Your task to perform on an android device: stop showing notifications on the lock screen Image 0: 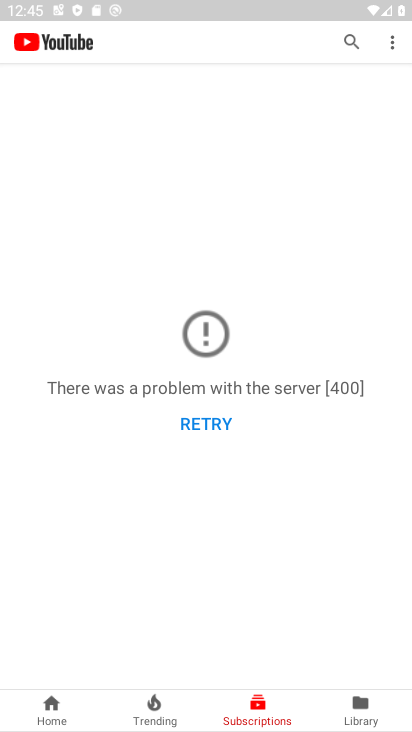
Step 0: press home button
Your task to perform on an android device: stop showing notifications on the lock screen Image 1: 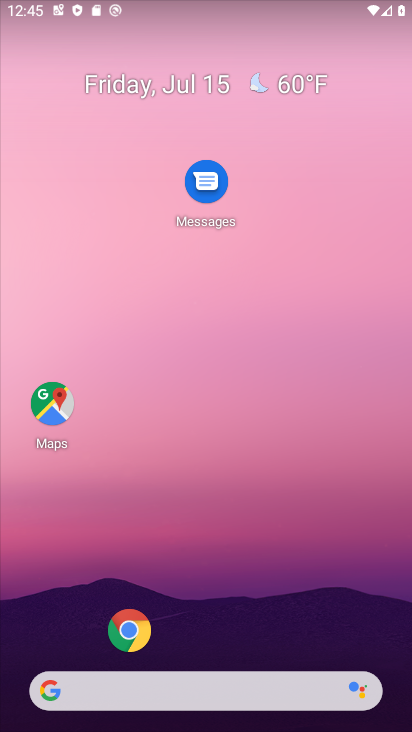
Step 1: drag from (6, 704) to (256, 163)
Your task to perform on an android device: stop showing notifications on the lock screen Image 2: 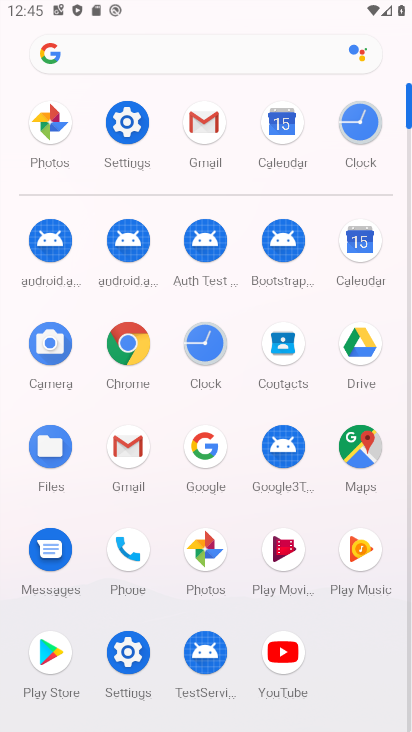
Step 2: click (120, 645)
Your task to perform on an android device: stop showing notifications on the lock screen Image 3: 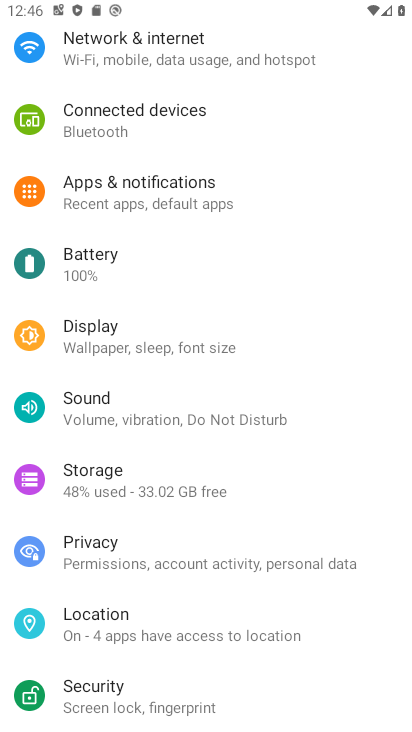
Step 3: click (172, 199)
Your task to perform on an android device: stop showing notifications on the lock screen Image 4: 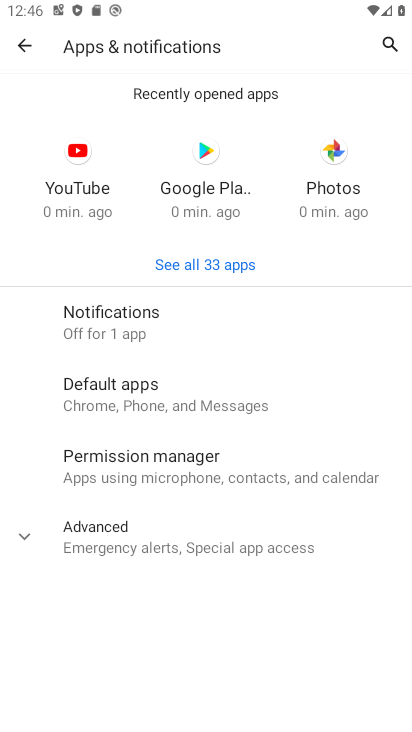
Step 4: click (20, 39)
Your task to perform on an android device: stop showing notifications on the lock screen Image 5: 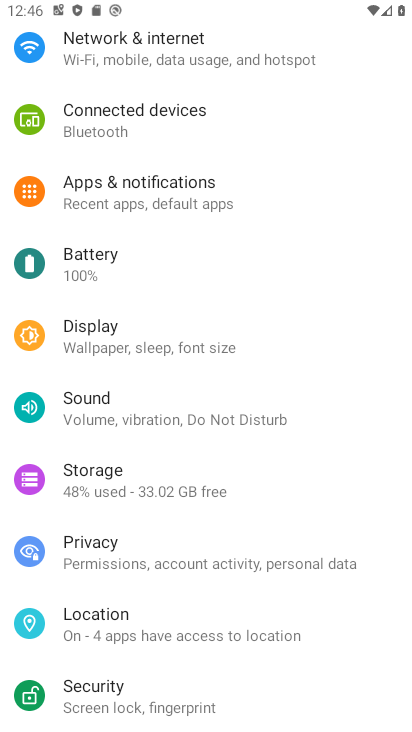
Step 5: click (133, 530)
Your task to perform on an android device: stop showing notifications on the lock screen Image 6: 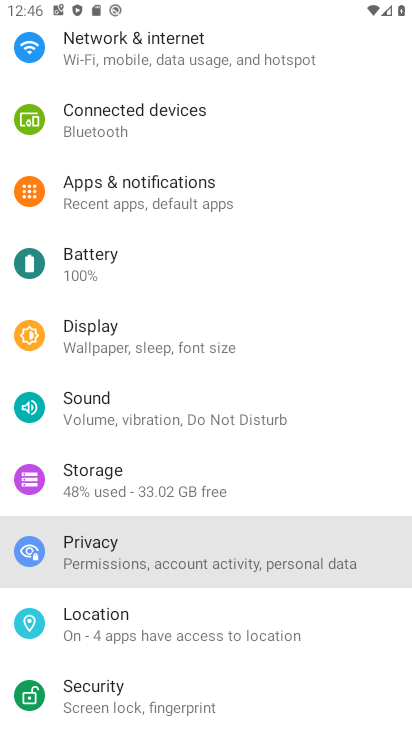
Step 6: click (122, 558)
Your task to perform on an android device: stop showing notifications on the lock screen Image 7: 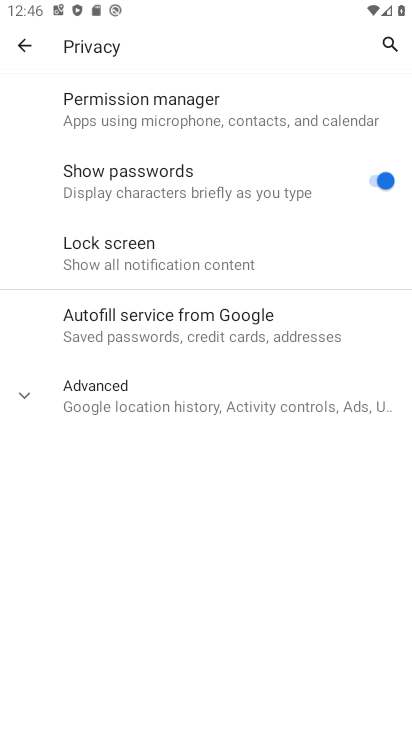
Step 7: click (147, 260)
Your task to perform on an android device: stop showing notifications on the lock screen Image 8: 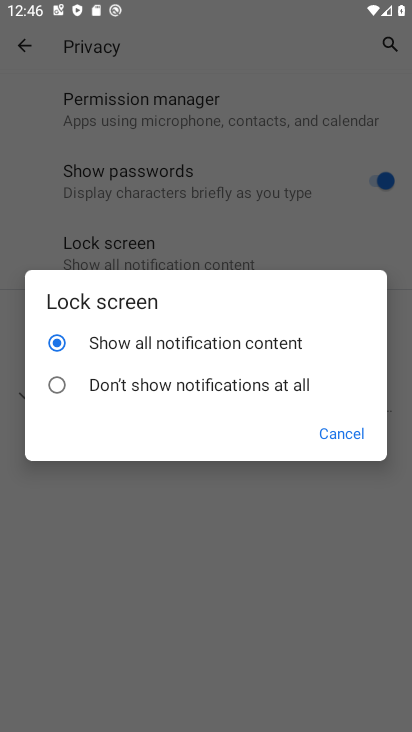
Step 8: click (144, 390)
Your task to perform on an android device: stop showing notifications on the lock screen Image 9: 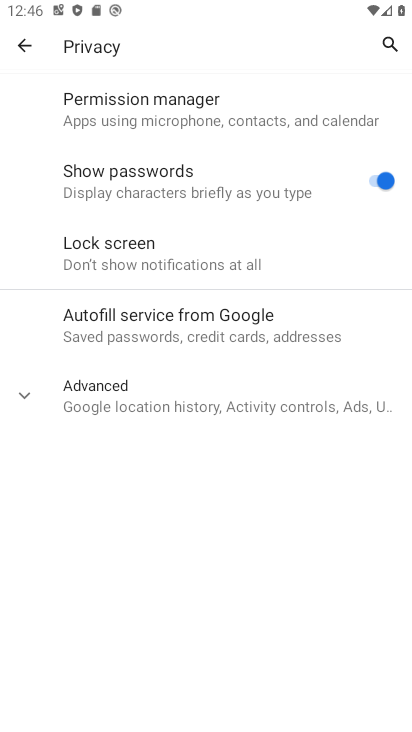
Step 9: task complete